Your task to perform on an android device: turn on priority inbox in the gmail app Image 0: 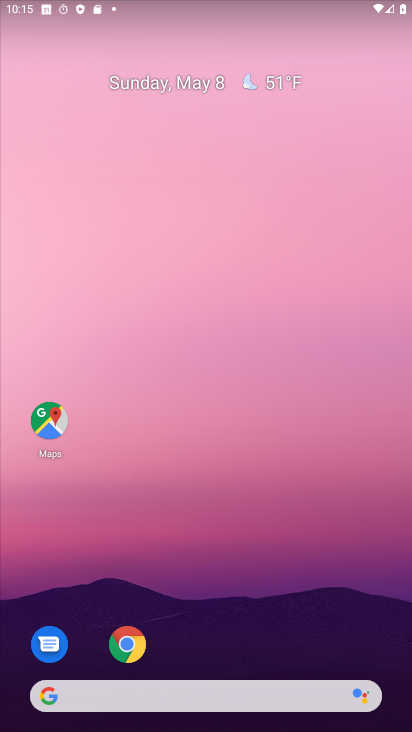
Step 0: click (303, 193)
Your task to perform on an android device: turn on priority inbox in the gmail app Image 1: 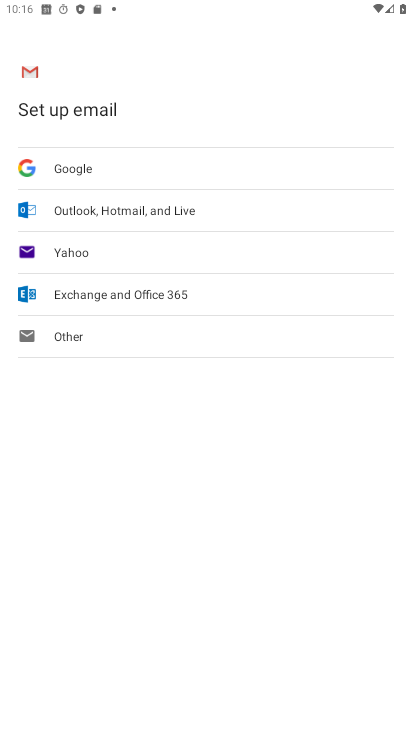
Step 1: drag from (318, 357) to (186, 0)
Your task to perform on an android device: turn on priority inbox in the gmail app Image 2: 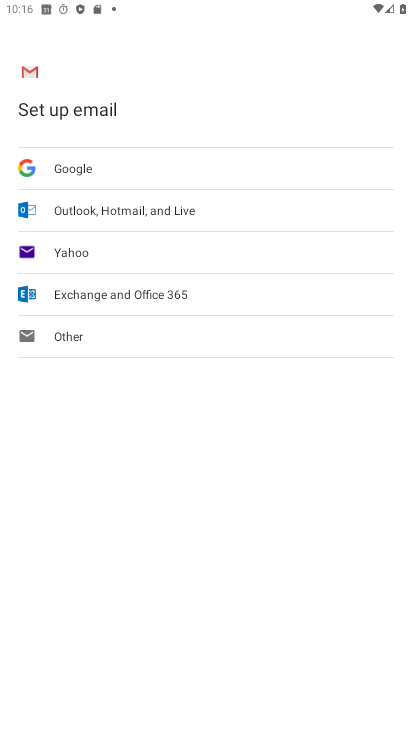
Step 2: click (190, 526)
Your task to perform on an android device: turn on priority inbox in the gmail app Image 3: 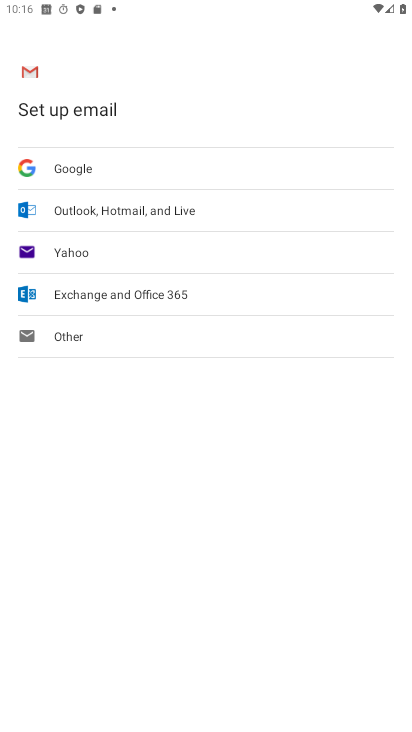
Step 3: click (119, 178)
Your task to perform on an android device: turn on priority inbox in the gmail app Image 4: 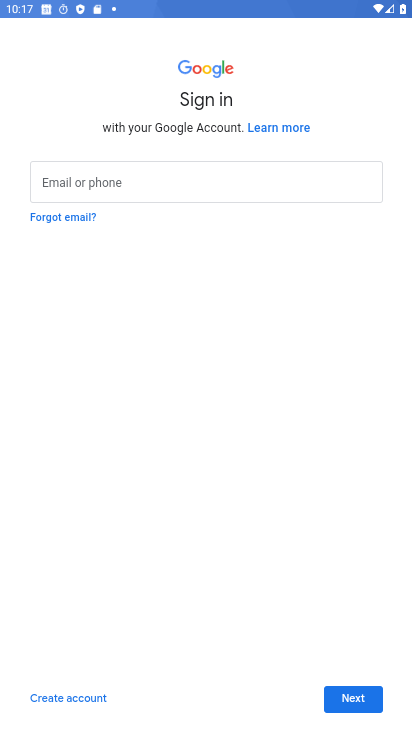
Step 4: click (166, 367)
Your task to perform on an android device: turn on priority inbox in the gmail app Image 5: 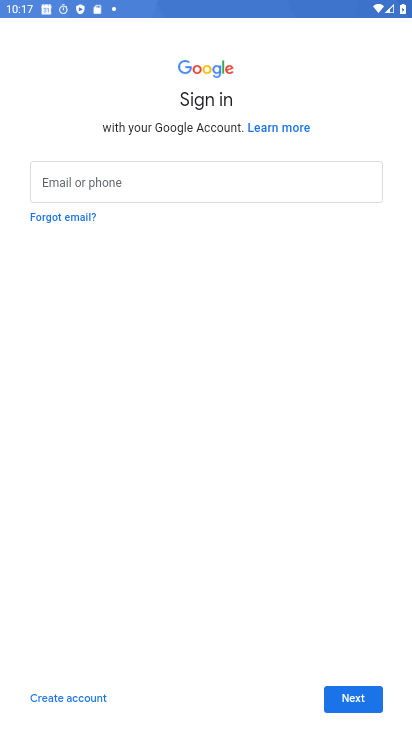
Step 5: task complete